Your task to perform on an android device: change the clock display to analog Image 0: 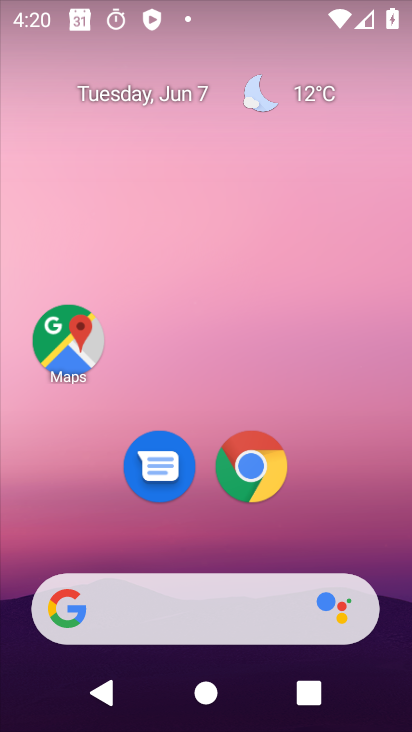
Step 0: drag from (380, 532) to (277, 43)
Your task to perform on an android device: change the clock display to analog Image 1: 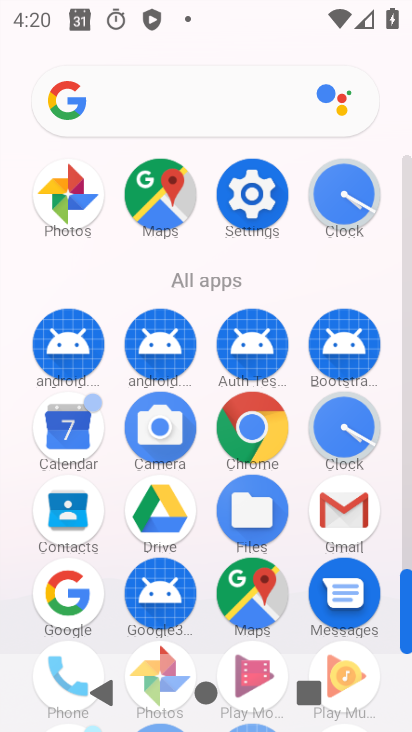
Step 1: click (347, 187)
Your task to perform on an android device: change the clock display to analog Image 2: 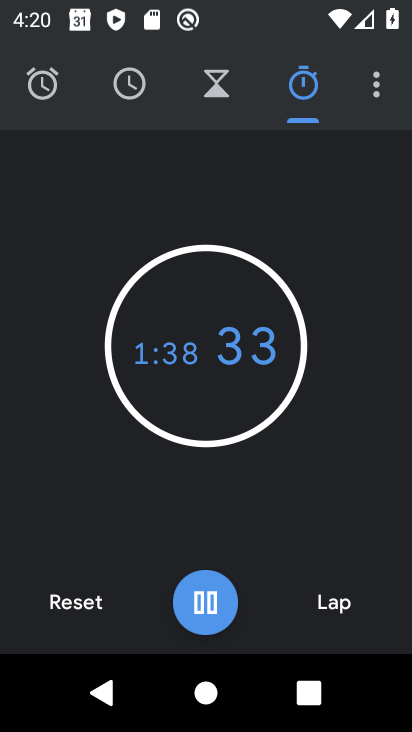
Step 2: click (395, 97)
Your task to perform on an android device: change the clock display to analog Image 3: 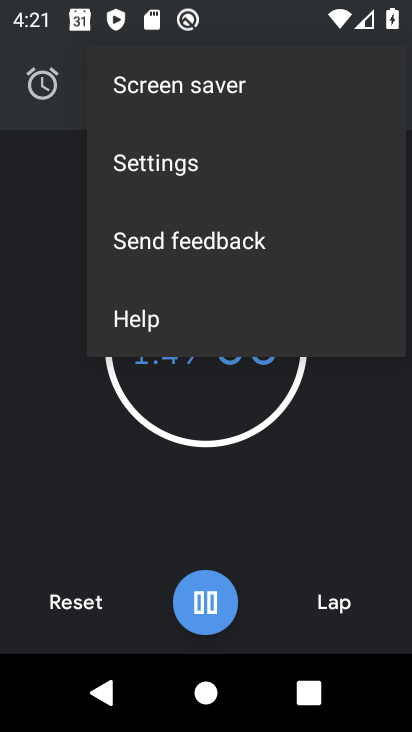
Step 3: click (312, 162)
Your task to perform on an android device: change the clock display to analog Image 4: 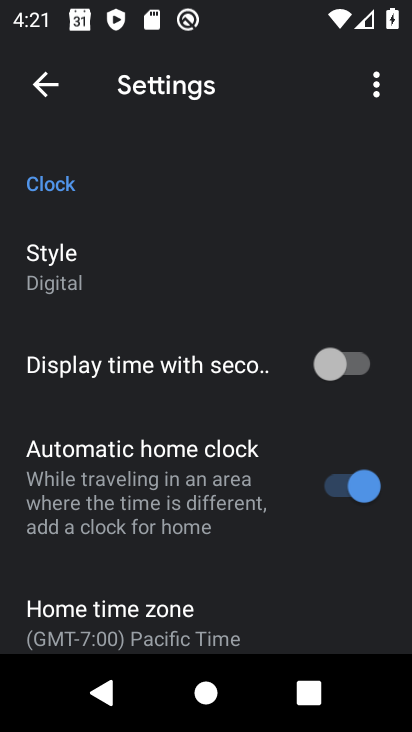
Step 4: click (287, 278)
Your task to perform on an android device: change the clock display to analog Image 5: 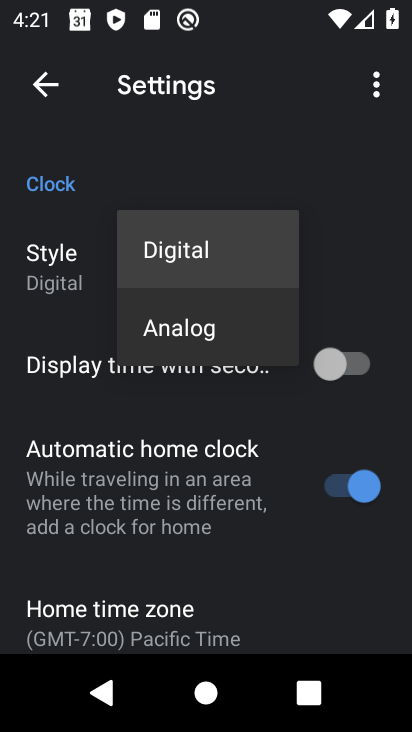
Step 5: click (235, 323)
Your task to perform on an android device: change the clock display to analog Image 6: 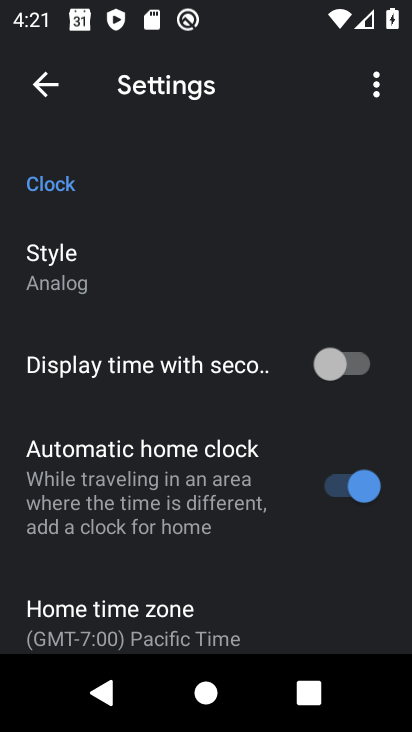
Step 6: task complete